Your task to perform on an android device: Open Youtube and go to the subscriptions tab Image 0: 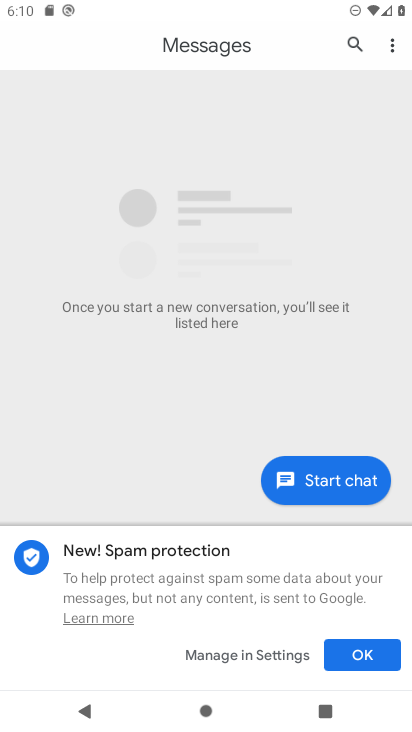
Step 0: press home button
Your task to perform on an android device: Open Youtube and go to the subscriptions tab Image 1: 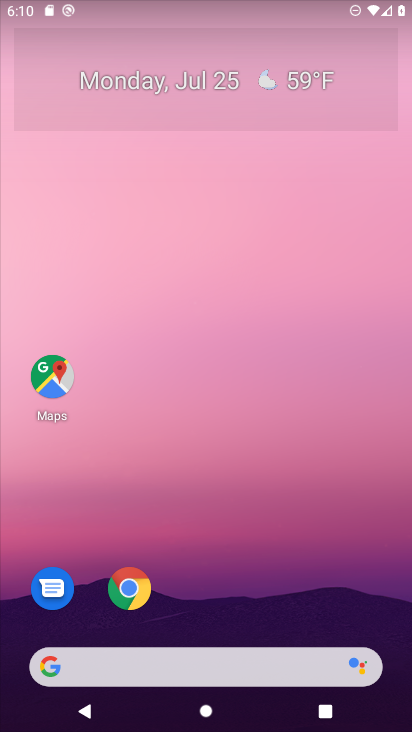
Step 1: drag from (280, 606) to (282, 217)
Your task to perform on an android device: Open Youtube and go to the subscriptions tab Image 2: 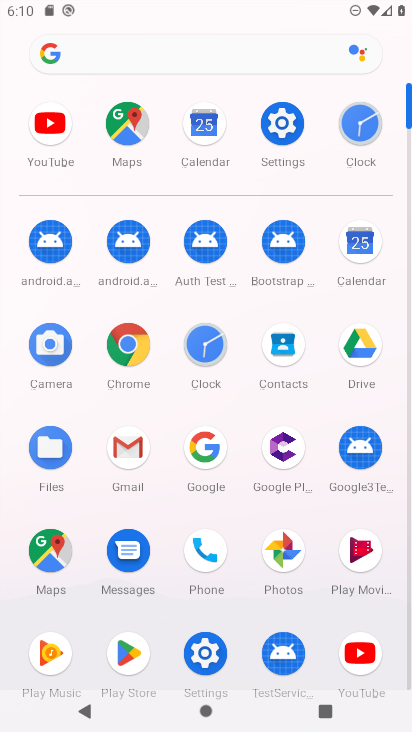
Step 2: click (361, 655)
Your task to perform on an android device: Open Youtube and go to the subscriptions tab Image 3: 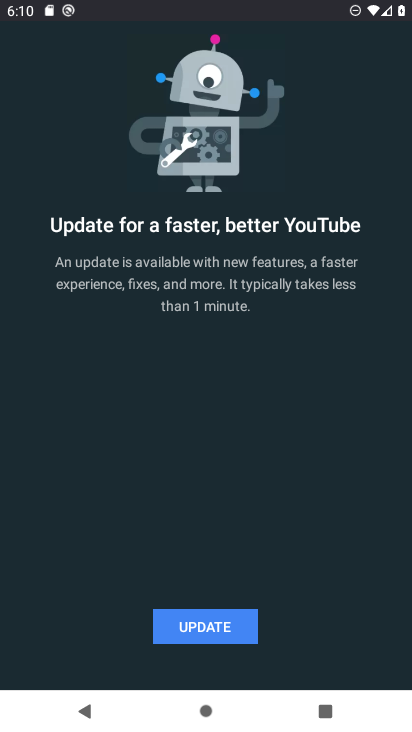
Step 3: task complete